Your task to perform on an android device: Is it going to rain tomorrow? Image 0: 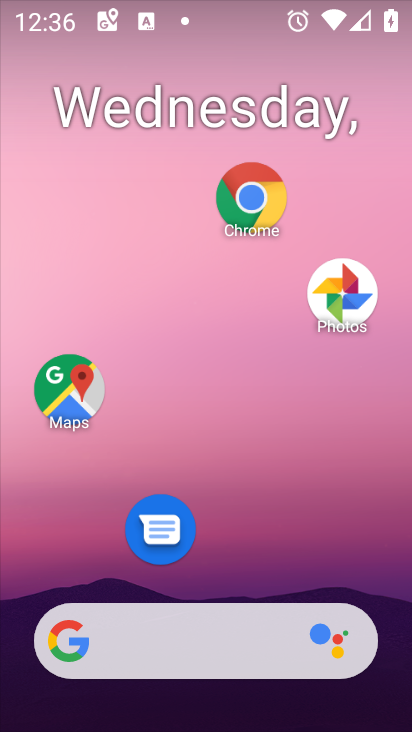
Step 0: drag from (264, 562) to (312, 176)
Your task to perform on an android device: Is it going to rain tomorrow? Image 1: 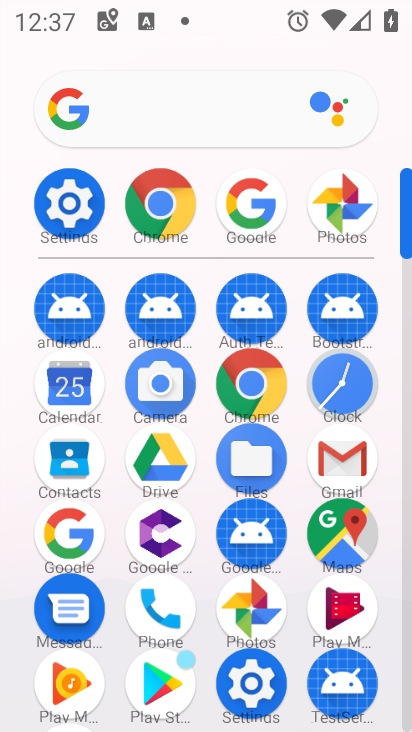
Step 1: click (80, 525)
Your task to perform on an android device: Is it going to rain tomorrow? Image 2: 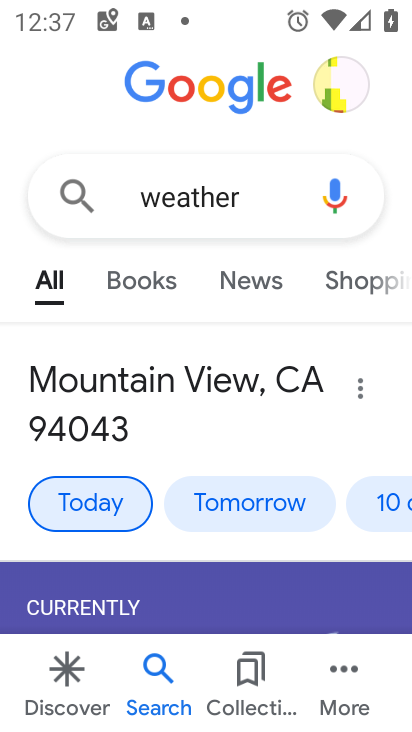
Step 2: click (258, 207)
Your task to perform on an android device: Is it going to rain tomorrow? Image 3: 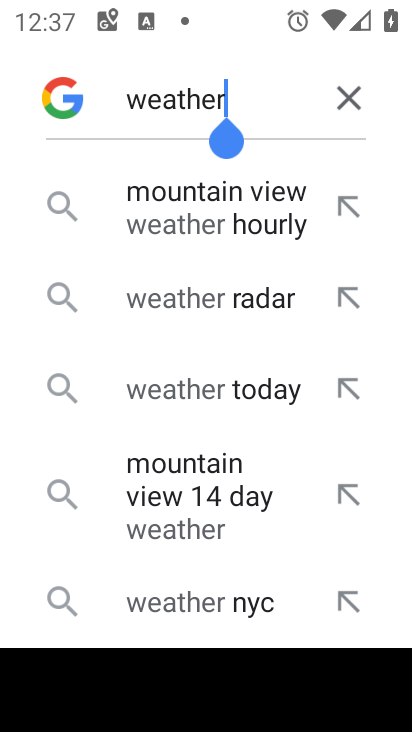
Step 3: click (346, 104)
Your task to perform on an android device: Is it going to rain tomorrow? Image 4: 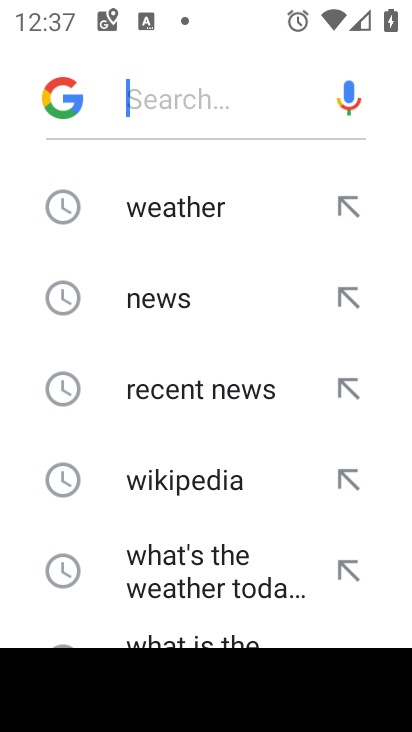
Step 4: click (265, 210)
Your task to perform on an android device: Is it going to rain tomorrow? Image 5: 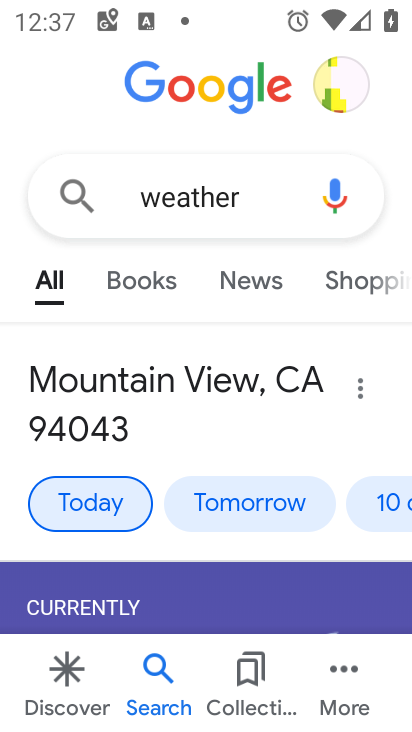
Step 5: click (210, 503)
Your task to perform on an android device: Is it going to rain tomorrow? Image 6: 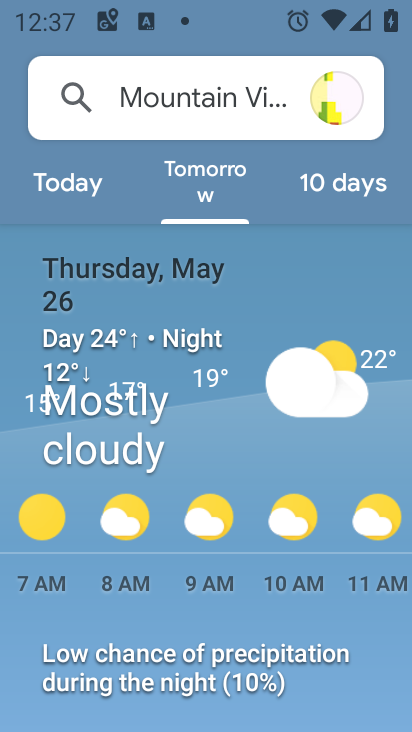
Step 6: task complete